Your task to perform on an android device: Show me popular videos on Youtube Image 0: 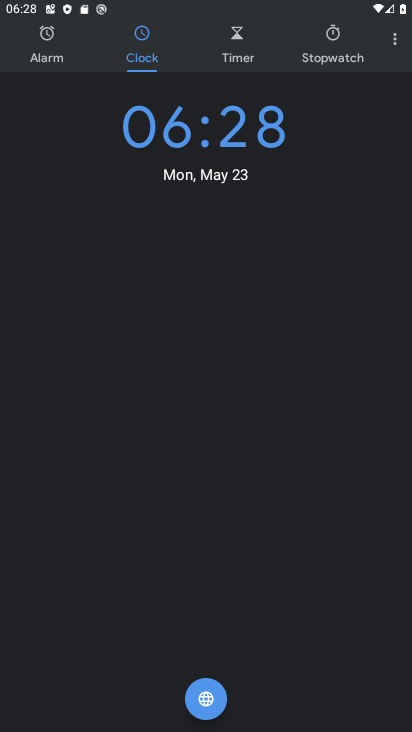
Step 0: press home button
Your task to perform on an android device: Show me popular videos on Youtube Image 1: 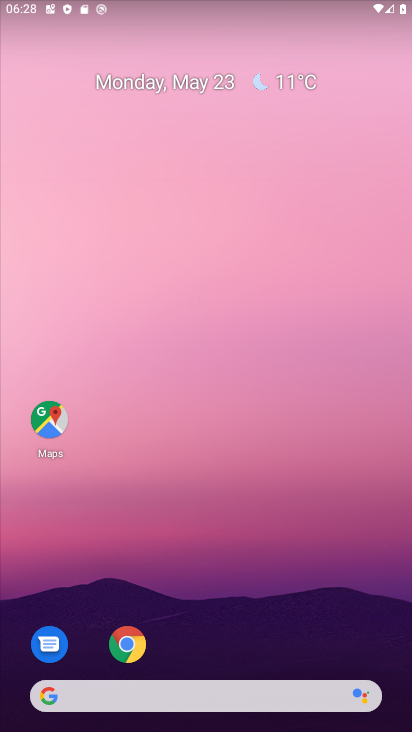
Step 1: drag from (230, 638) to (177, 208)
Your task to perform on an android device: Show me popular videos on Youtube Image 2: 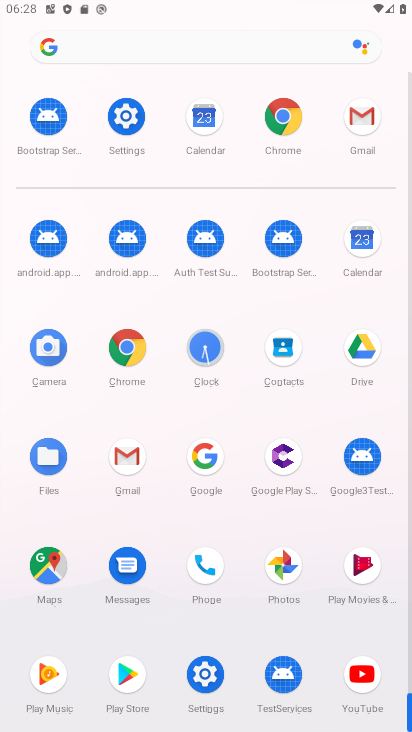
Step 2: click (359, 683)
Your task to perform on an android device: Show me popular videos on Youtube Image 3: 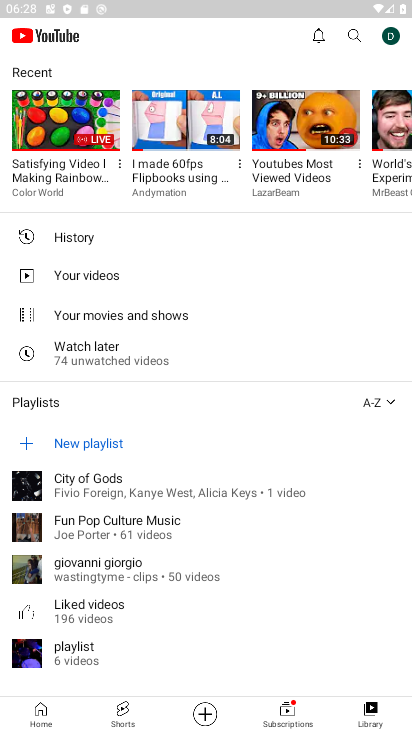
Step 3: click (35, 723)
Your task to perform on an android device: Show me popular videos on Youtube Image 4: 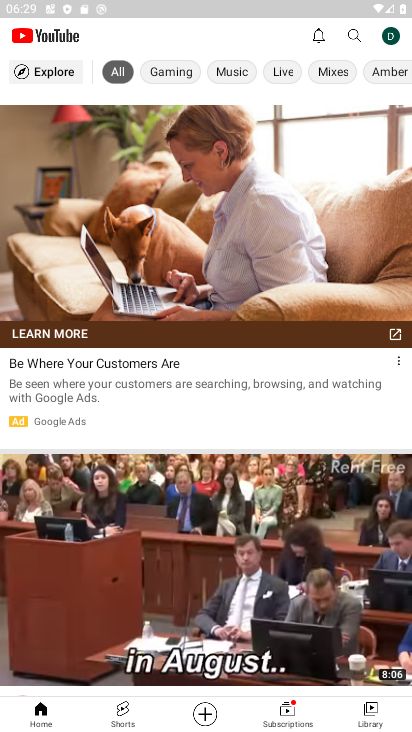
Step 4: task complete